Your task to perform on an android device: Check the settings for the Amazon Shopping app Image 0: 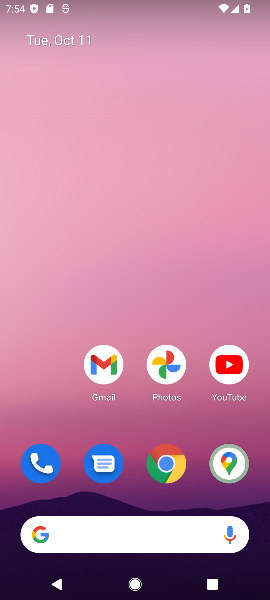
Step 0: drag from (137, 457) to (139, 199)
Your task to perform on an android device: Check the settings for the Amazon Shopping app Image 1: 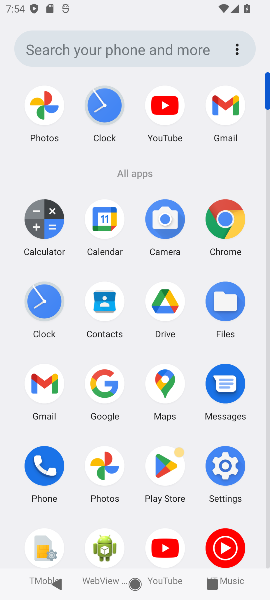
Step 1: click (105, 389)
Your task to perform on an android device: Check the settings for the Amazon Shopping app Image 2: 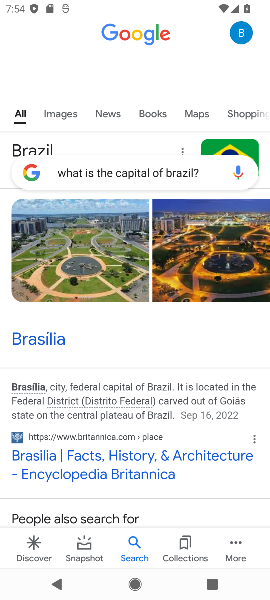
Step 2: press home button
Your task to perform on an android device: Check the settings for the Amazon Shopping app Image 3: 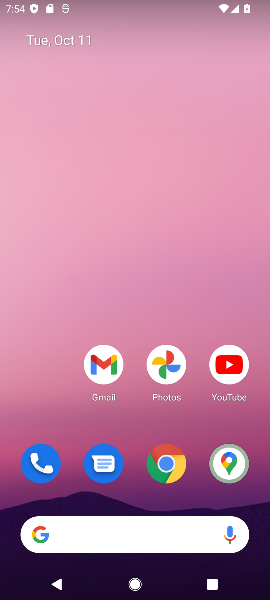
Step 3: drag from (115, 523) to (117, 185)
Your task to perform on an android device: Check the settings for the Amazon Shopping app Image 4: 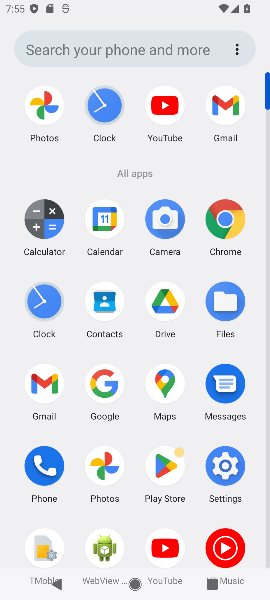
Step 4: click (145, 457)
Your task to perform on an android device: Check the settings for the Amazon Shopping app Image 5: 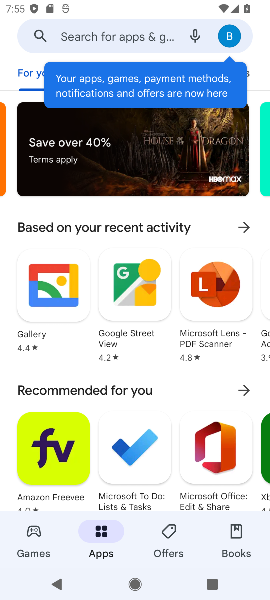
Step 5: click (141, 26)
Your task to perform on an android device: Check the settings for the Amazon Shopping app Image 6: 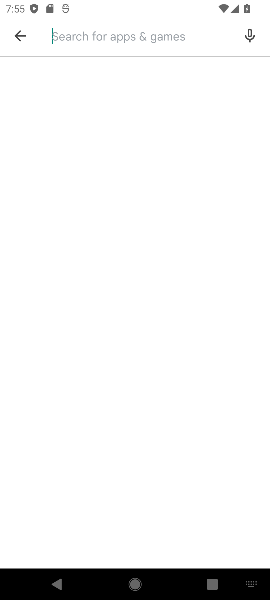
Step 6: click (138, 28)
Your task to perform on an android device: Check the settings for the Amazon Shopping app Image 7: 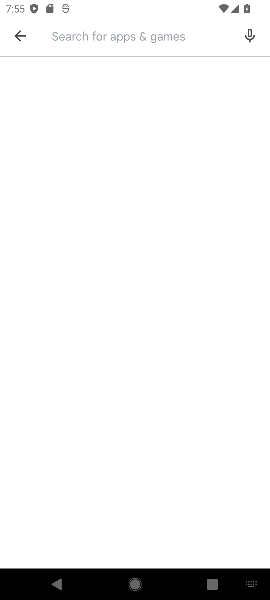
Step 7: type "Amazon Shopping app "
Your task to perform on an android device: Check the settings for the Amazon Shopping app Image 8: 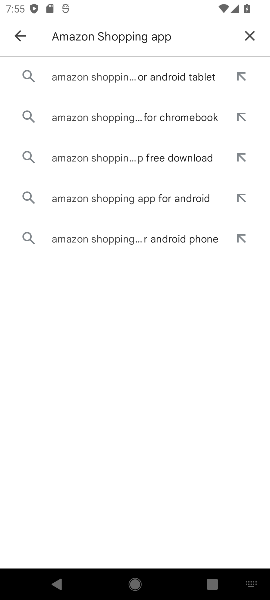
Step 8: click (128, 71)
Your task to perform on an android device: Check the settings for the Amazon Shopping app Image 9: 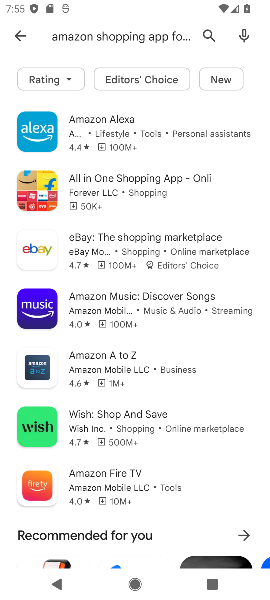
Step 9: drag from (131, 475) to (165, 468)
Your task to perform on an android device: Check the settings for the Amazon Shopping app Image 10: 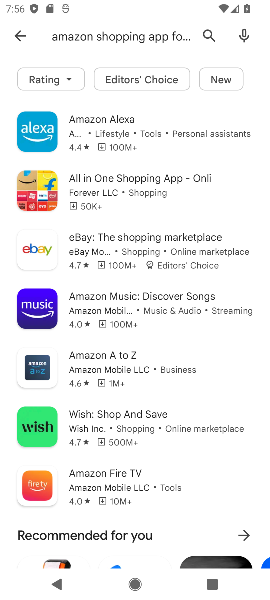
Step 10: click (92, 193)
Your task to perform on an android device: Check the settings for the Amazon Shopping app Image 11: 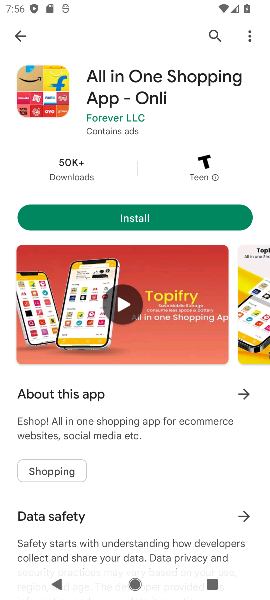
Step 11: click (129, 215)
Your task to perform on an android device: Check the settings for the Amazon Shopping app Image 12: 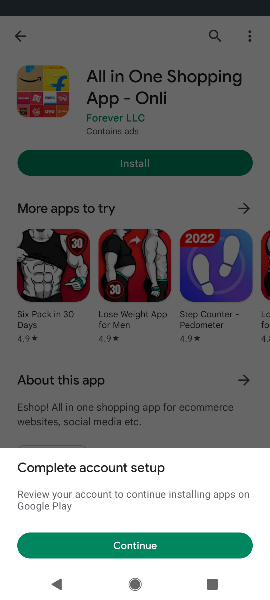
Step 12: task complete